Your task to perform on an android device: Open wifi settings Image 0: 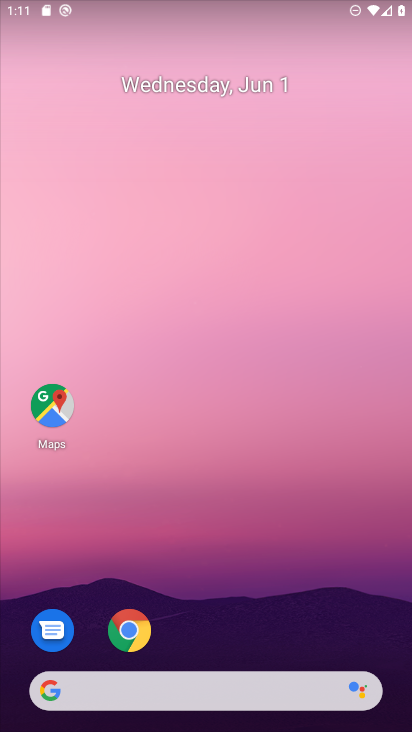
Step 0: press home button
Your task to perform on an android device: Open wifi settings Image 1: 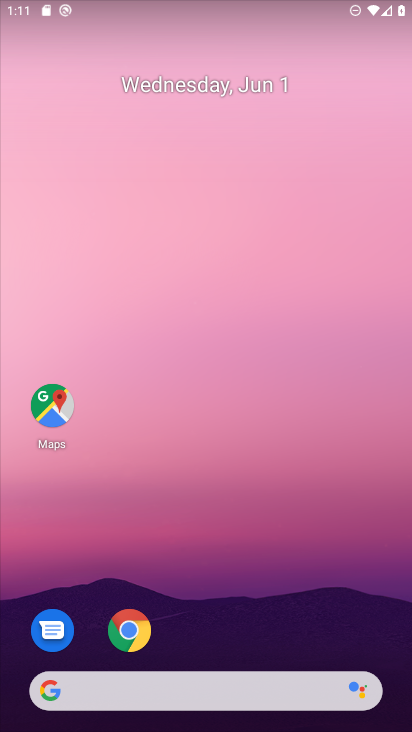
Step 1: drag from (278, 632) to (280, 79)
Your task to perform on an android device: Open wifi settings Image 2: 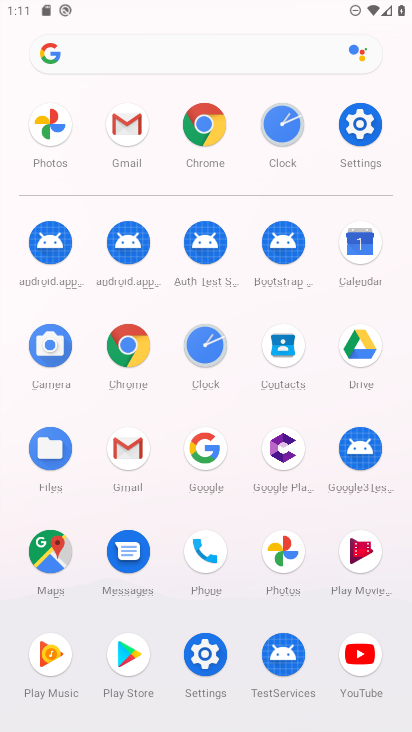
Step 2: click (364, 121)
Your task to perform on an android device: Open wifi settings Image 3: 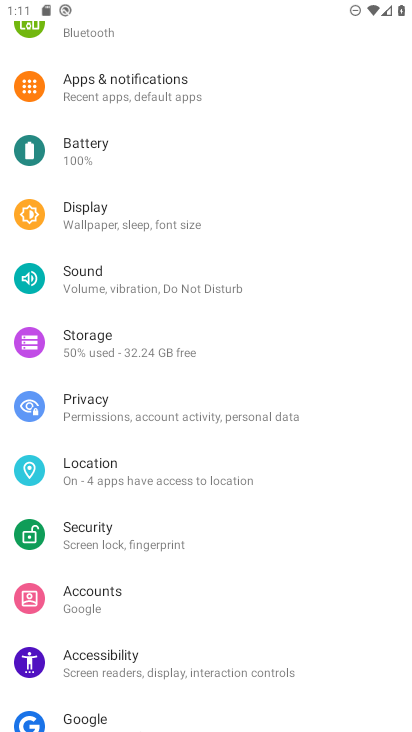
Step 3: drag from (214, 65) to (197, 518)
Your task to perform on an android device: Open wifi settings Image 4: 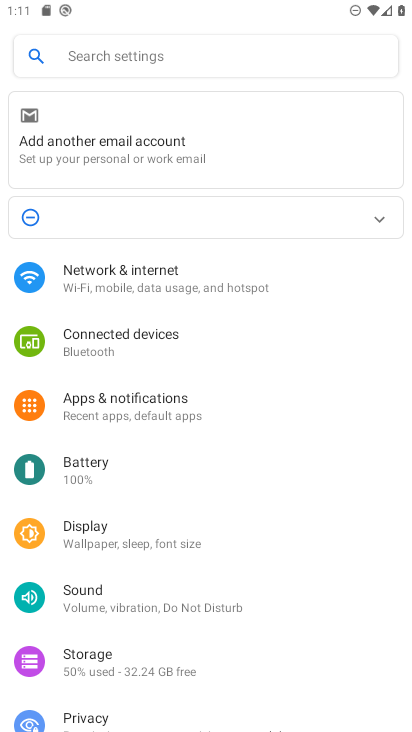
Step 4: click (118, 271)
Your task to perform on an android device: Open wifi settings Image 5: 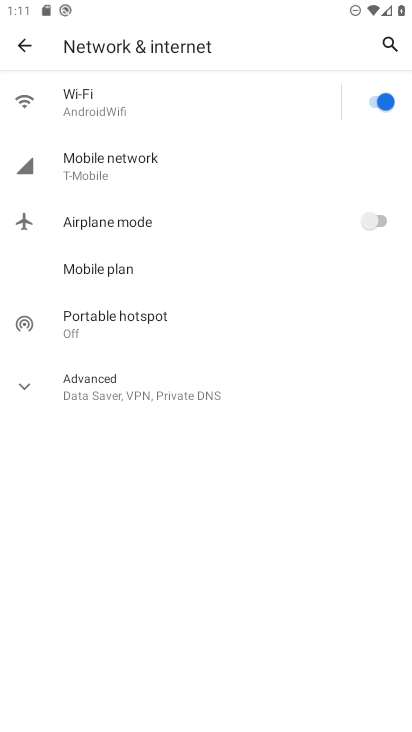
Step 5: click (89, 101)
Your task to perform on an android device: Open wifi settings Image 6: 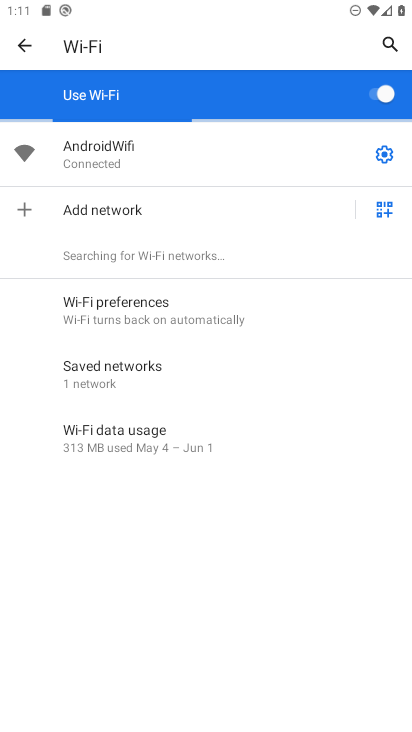
Step 6: task complete